Your task to perform on an android device: Find coffee shops on Maps Image 0: 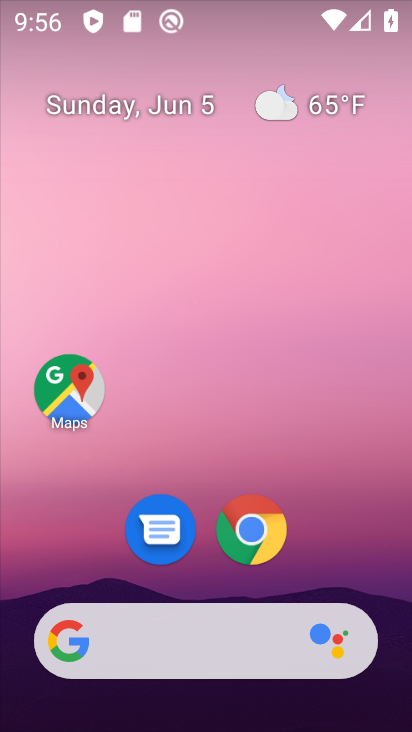
Step 0: click (408, 695)
Your task to perform on an android device: Find coffee shops on Maps Image 1: 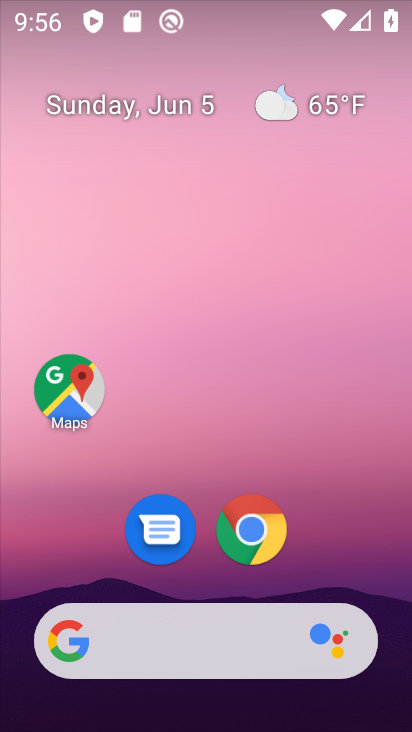
Step 1: click (90, 400)
Your task to perform on an android device: Find coffee shops on Maps Image 2: 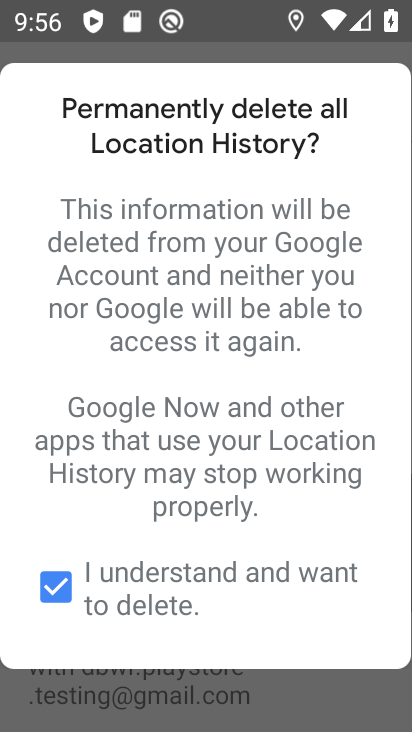
Step 2: press back button
Your task to perform on an android device: Find coffee shops on Maps Image 3: 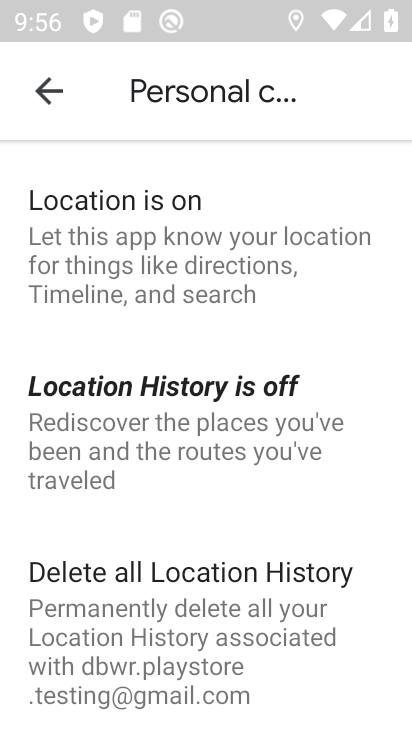
Step 3: click (34, 99)
Your task to perform on an android device: Find coffee shops on Maps Image 4: 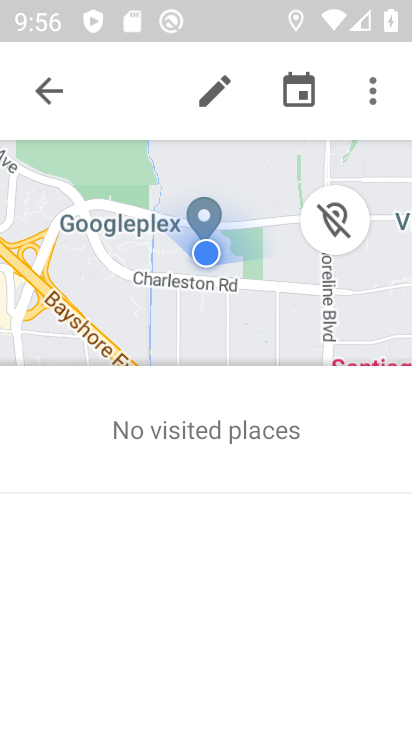
Step 4: click (55, 90)
Your task to perform on an android device: Find coffee shops on Maps Image 5: 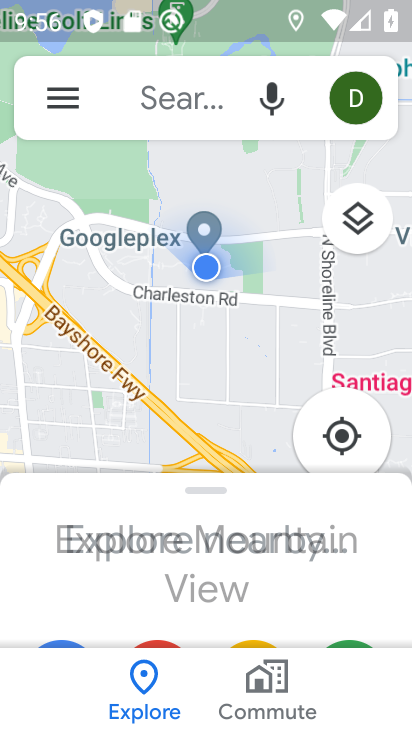
Step 5: click (214, 116)
Your task to perform on an android device: Find coffee shops on Maps Image 6: 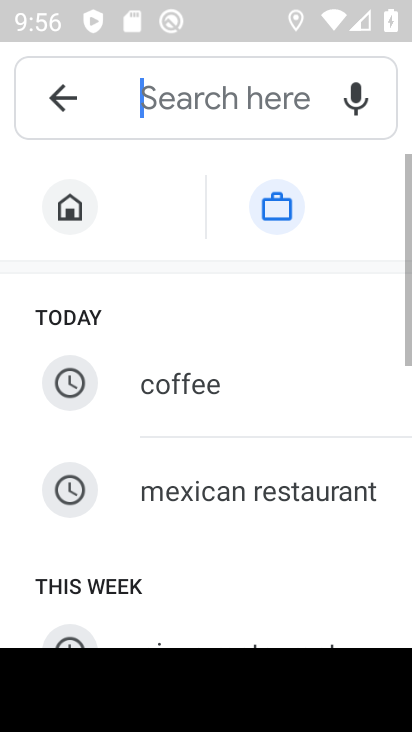
Step 6: click (211, 356)
Your task to perform on an android device: Find coffee shops on Maps Image 7: 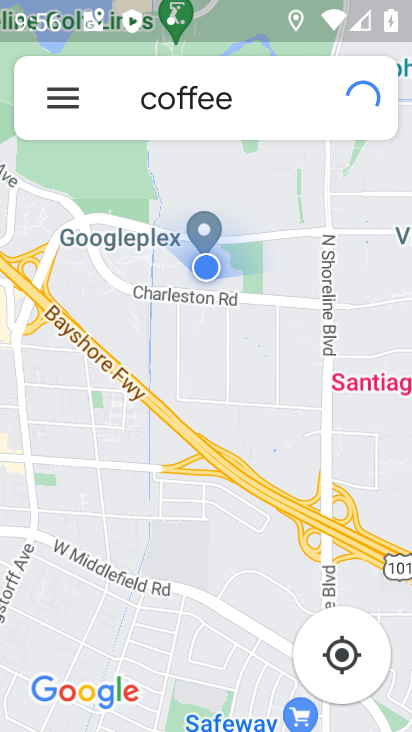
Step 7: task complete